Your task to perform on an android device: install app "LiveIn - Share Your Moment" Image 0: 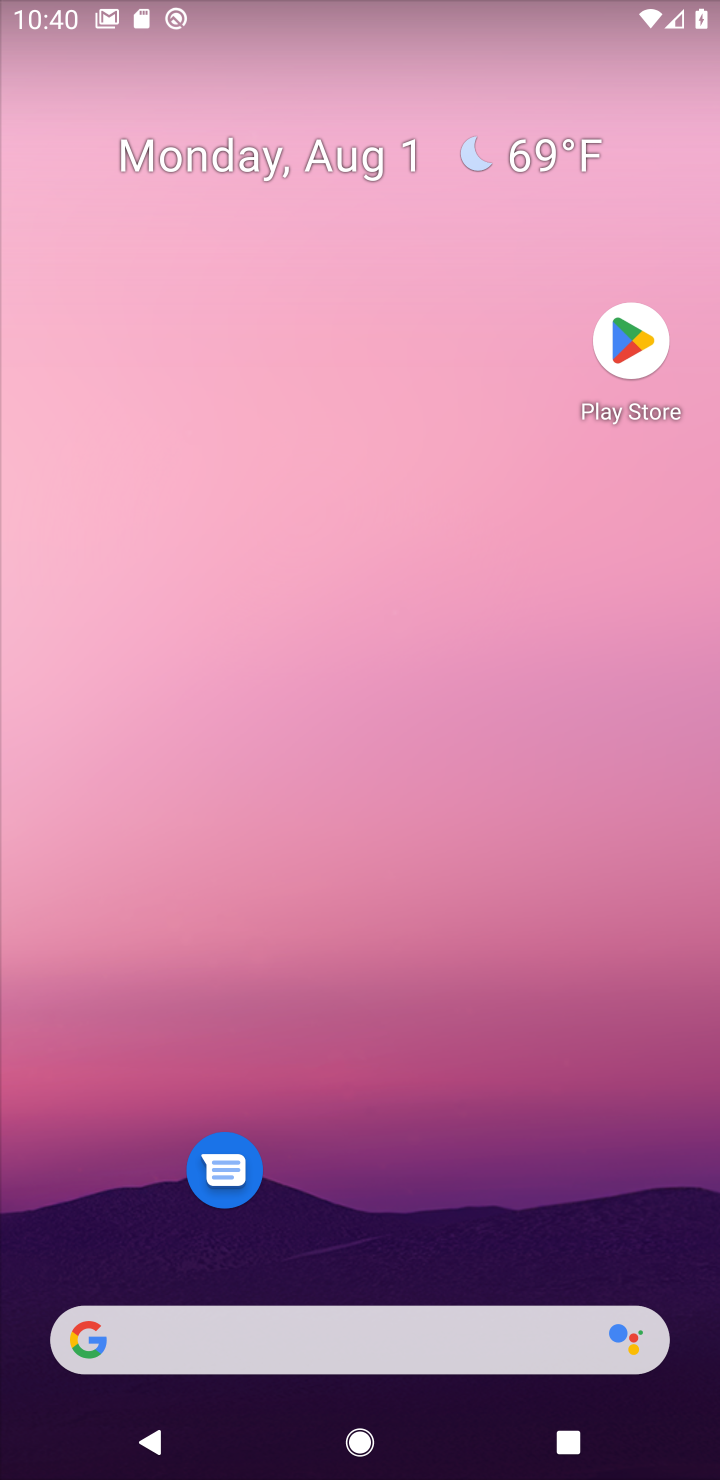
Step 0: drag from (366, 1192) to (387, 634)
Your task to perform on an android device: install app "LiveIn - Share Your Moment" Image 1: 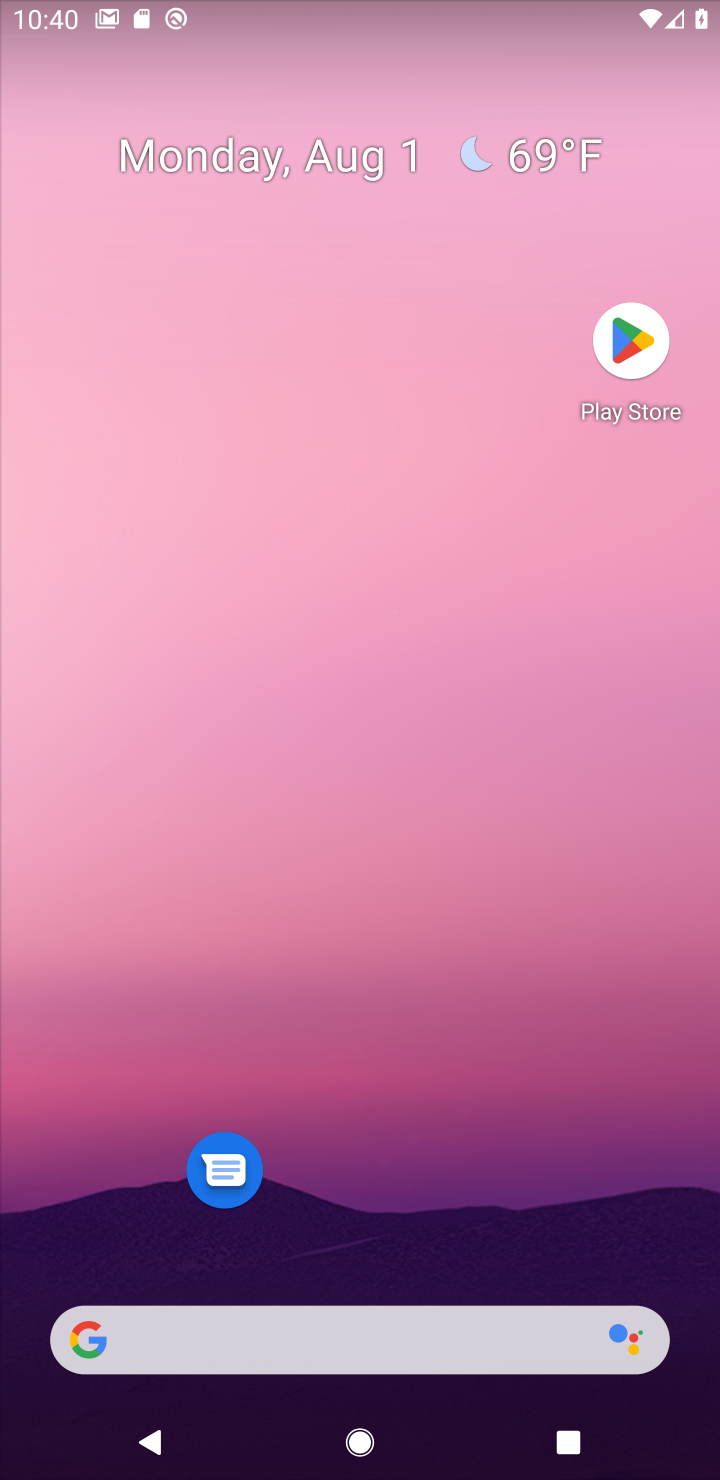
Step 1: drag from (465, 1176) to (275, 267)
Your task to perform on an android device: install app "LiveIn - Share Your Moment" Image 2: 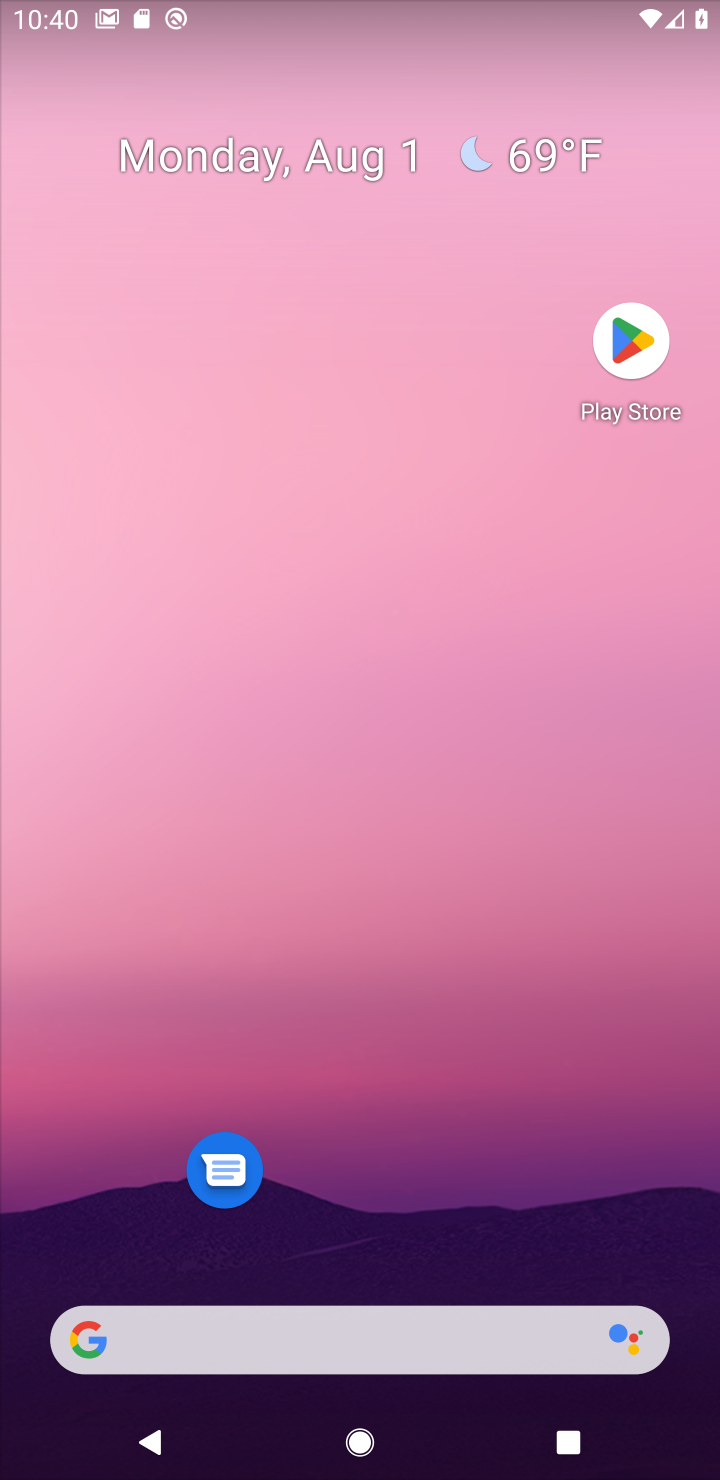
Step 2: drag from (505, 1308) to (297, 348)
Your task to perform on an android device: install app "LiveIn - Share Your Moment" Image 3: 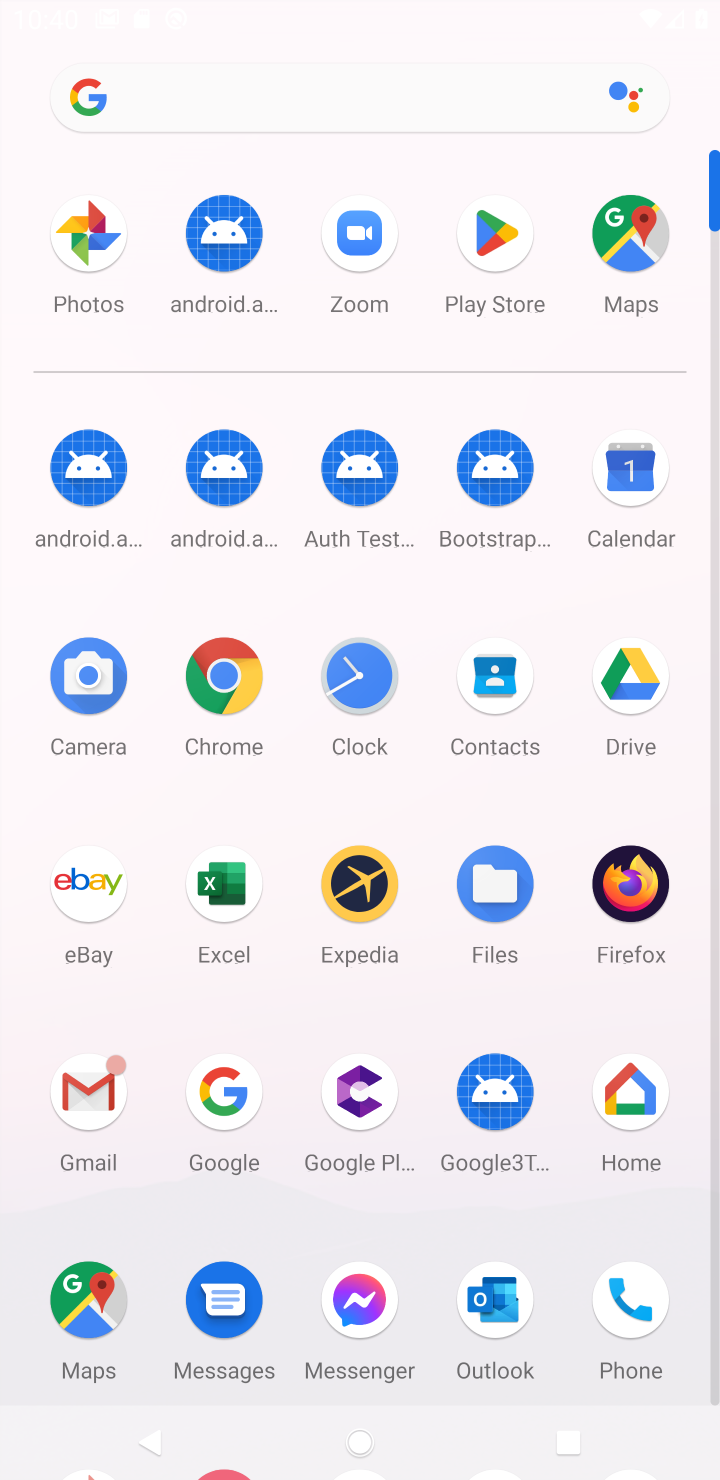
Step 3: click (377, 312)
Your task to perform on an android device: install app "LiveIn - Share Your Moment" Image 4: 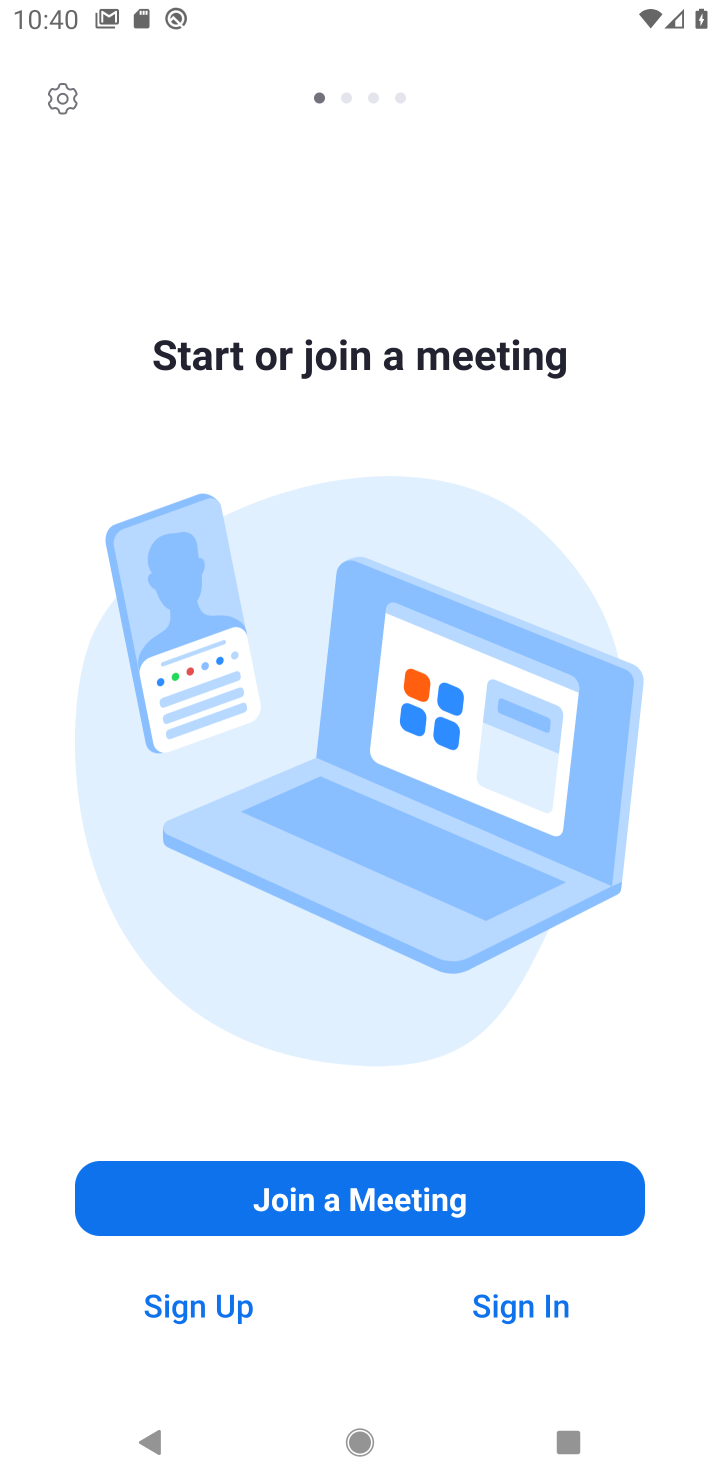
Step 4: press back button
Your task to perform on an android device: install app "LiveIn - Share Your Moment" Image 5: 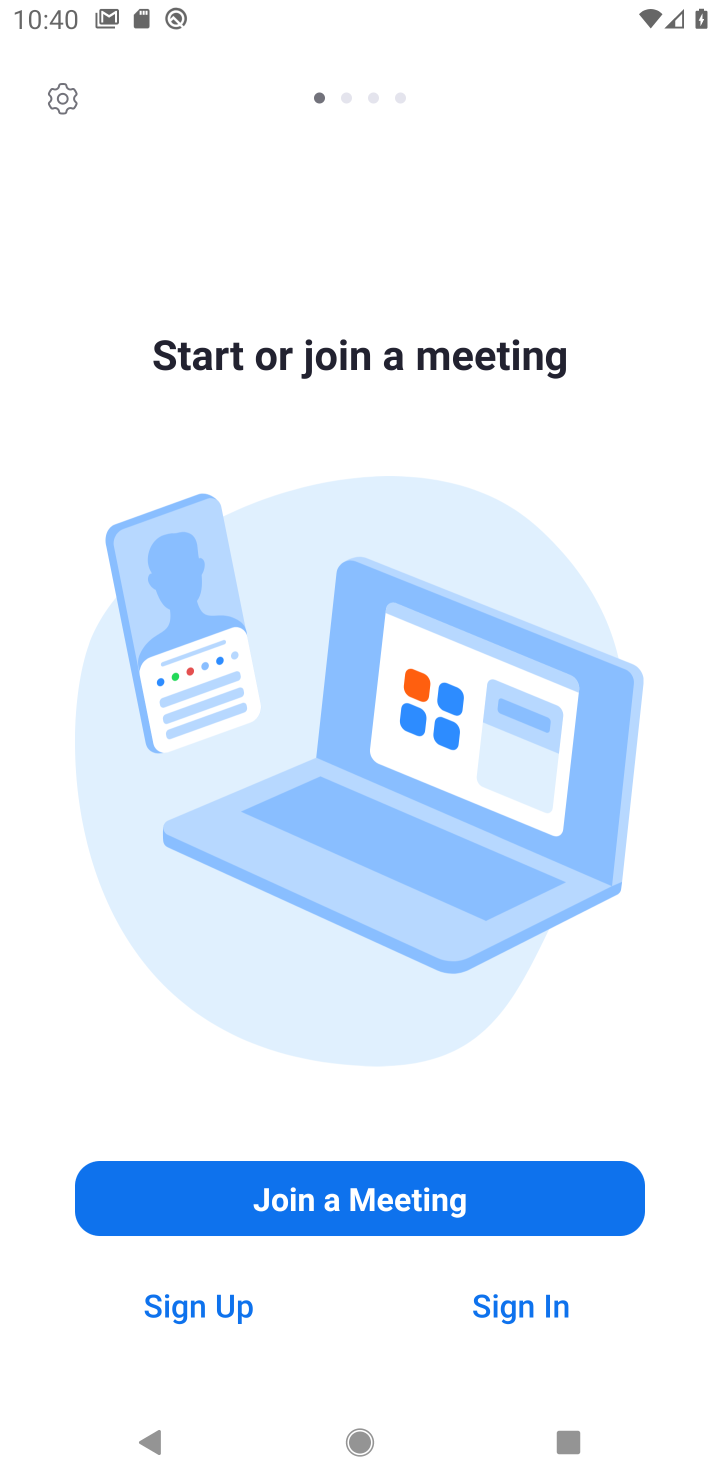
Step 5: press back button
Your task to perform on an android device: install app "LiveIn - Share Your Moment" Image 6: 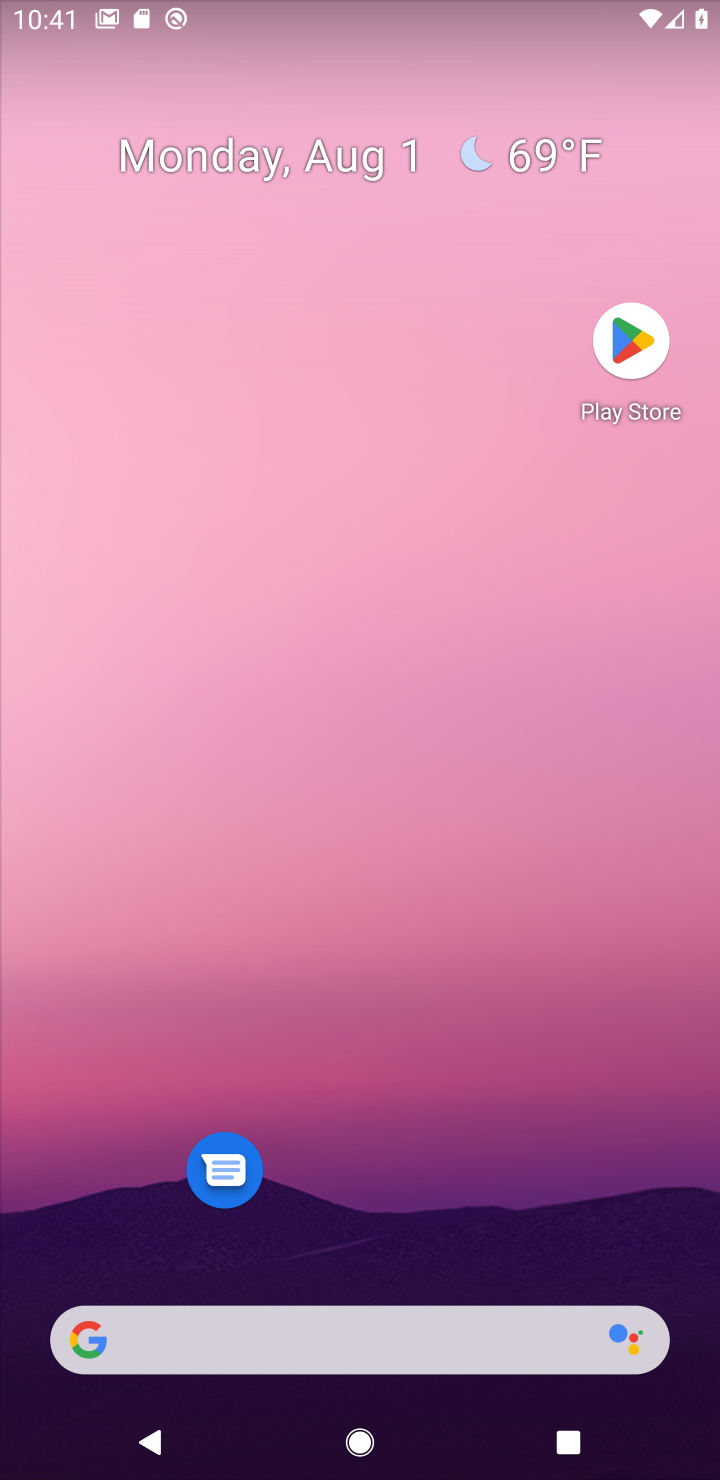
Step 6: drag from (431, 1149) to (184, 42)
Your task to perform on an android device: install app "LiveIn - Share Your Moment" Image 7: 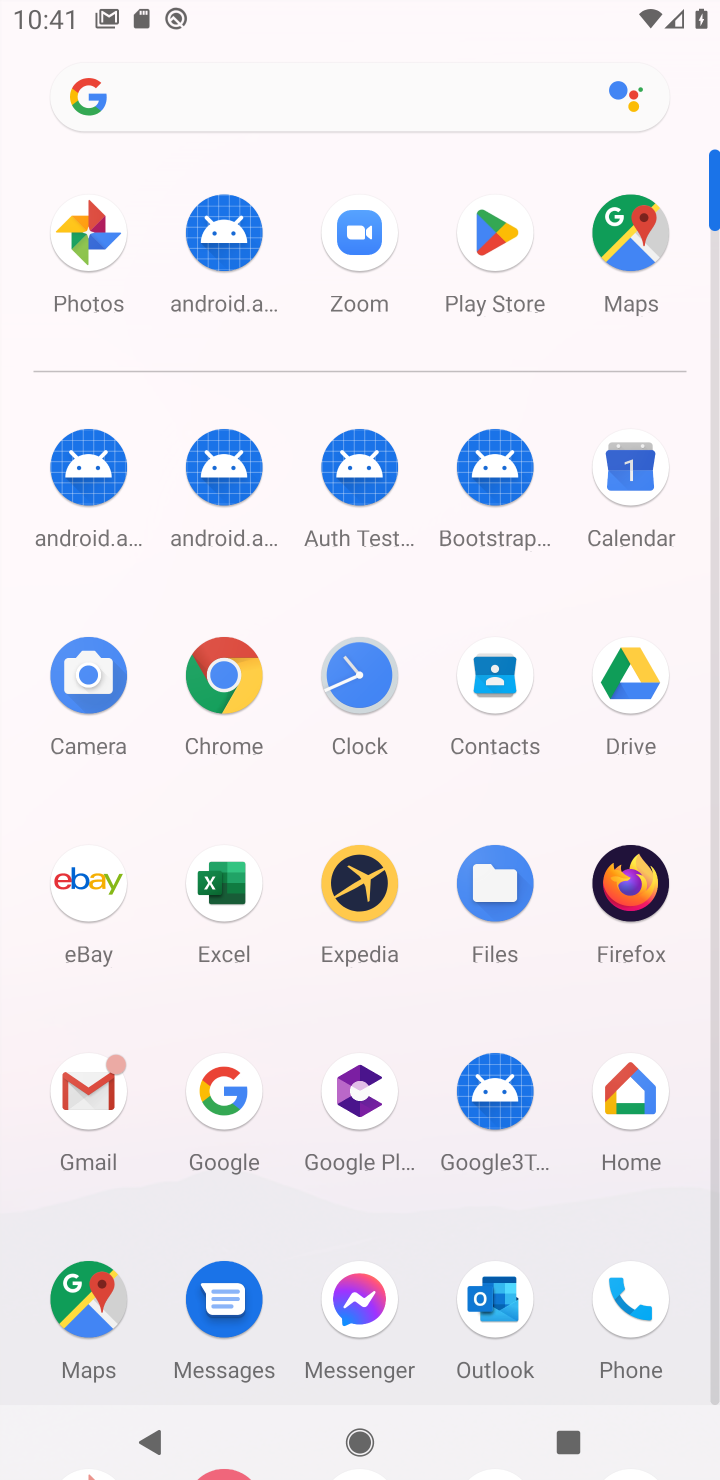
Step 7: click (498, 248)
Your task to perform on an android device: install app "LiveIn - Share Your Moment" Image 8: 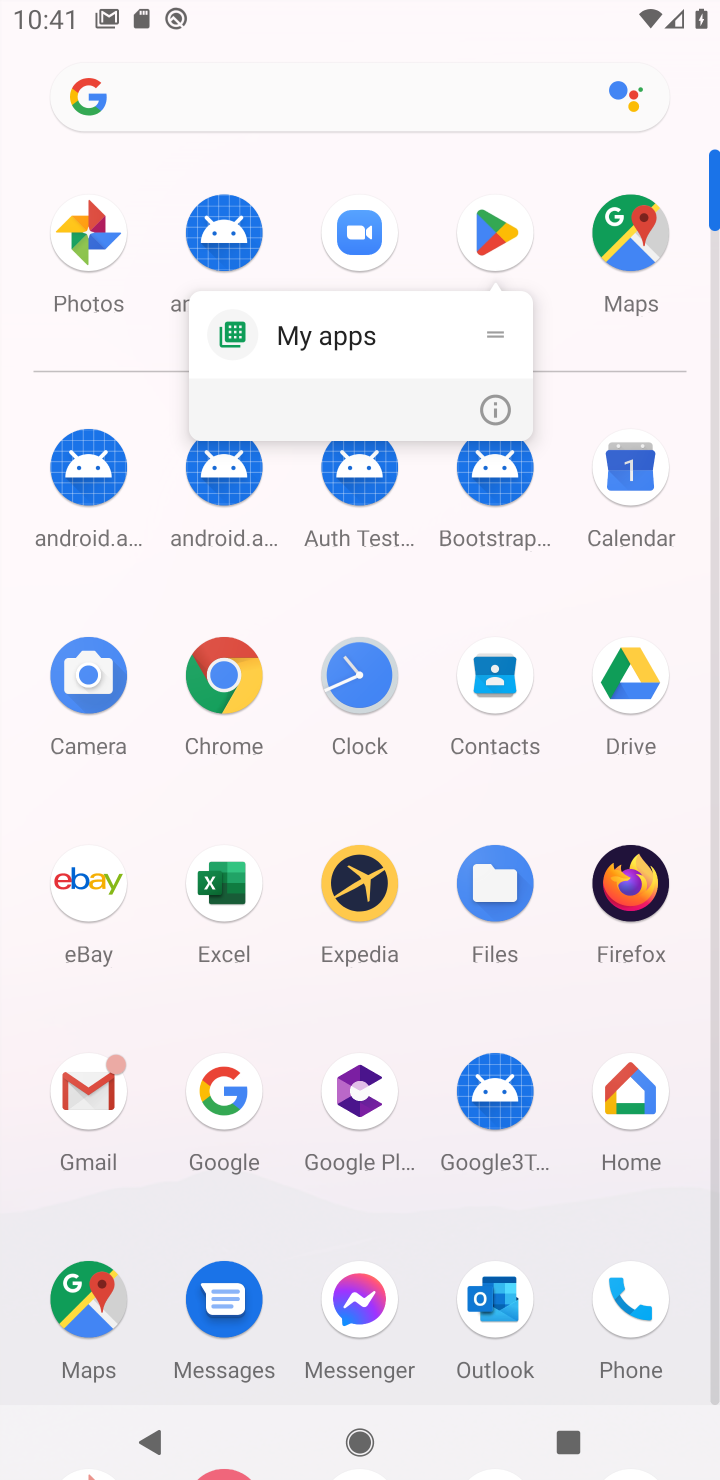
Step 8: click (512, 245)
Your task to perform on an android device: install app "LiveIn - Share Your Moment" Image 9: 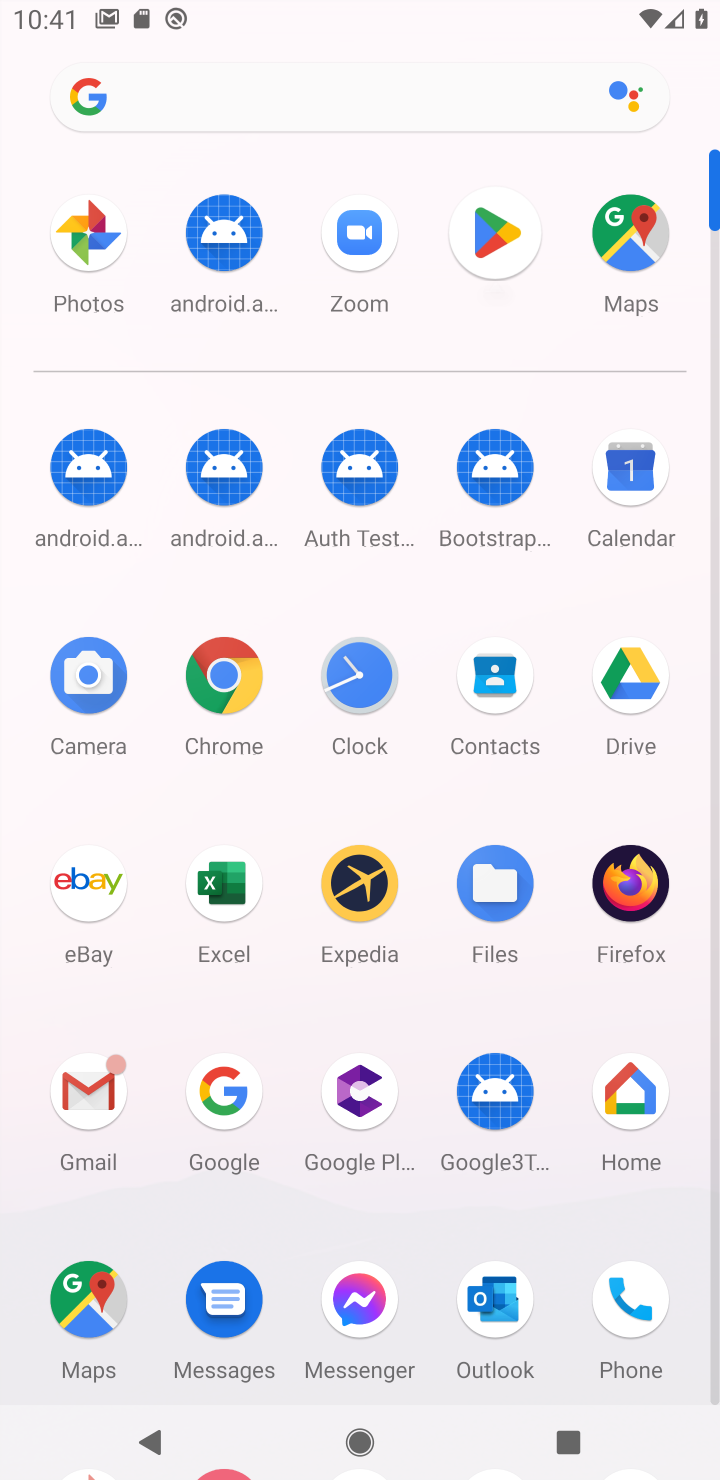
Step 9: click (503, 238)
Your task to perform on an android device: install app "LiveIn - Share Your Moment" Image 10: 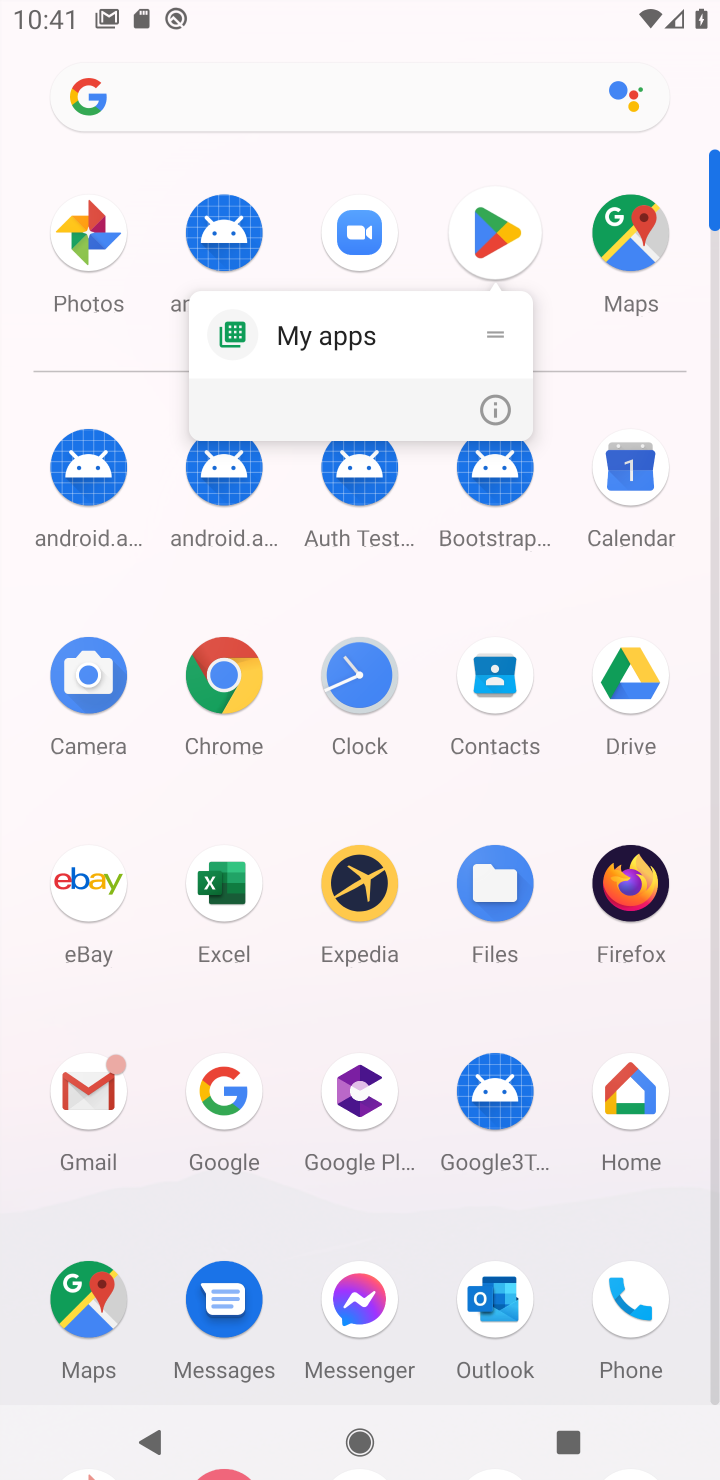
Step 10: click (501, 240)
Your task to perform on an android device: install app "LiveIn - Share Your Moment" Image 11: 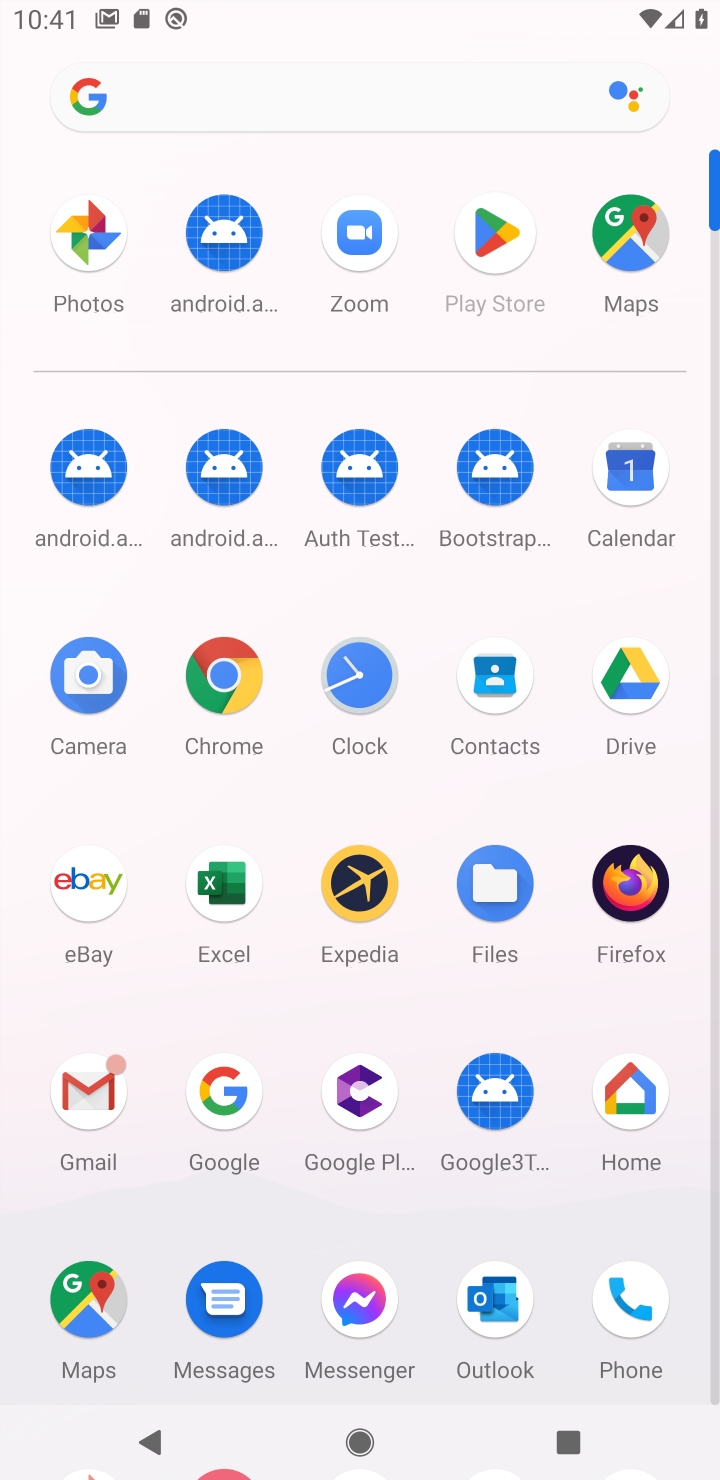
Step 11: click (503, 243)
Your task to perform on an android device: install app "LiveIn - Share Your Moment" Image 12: 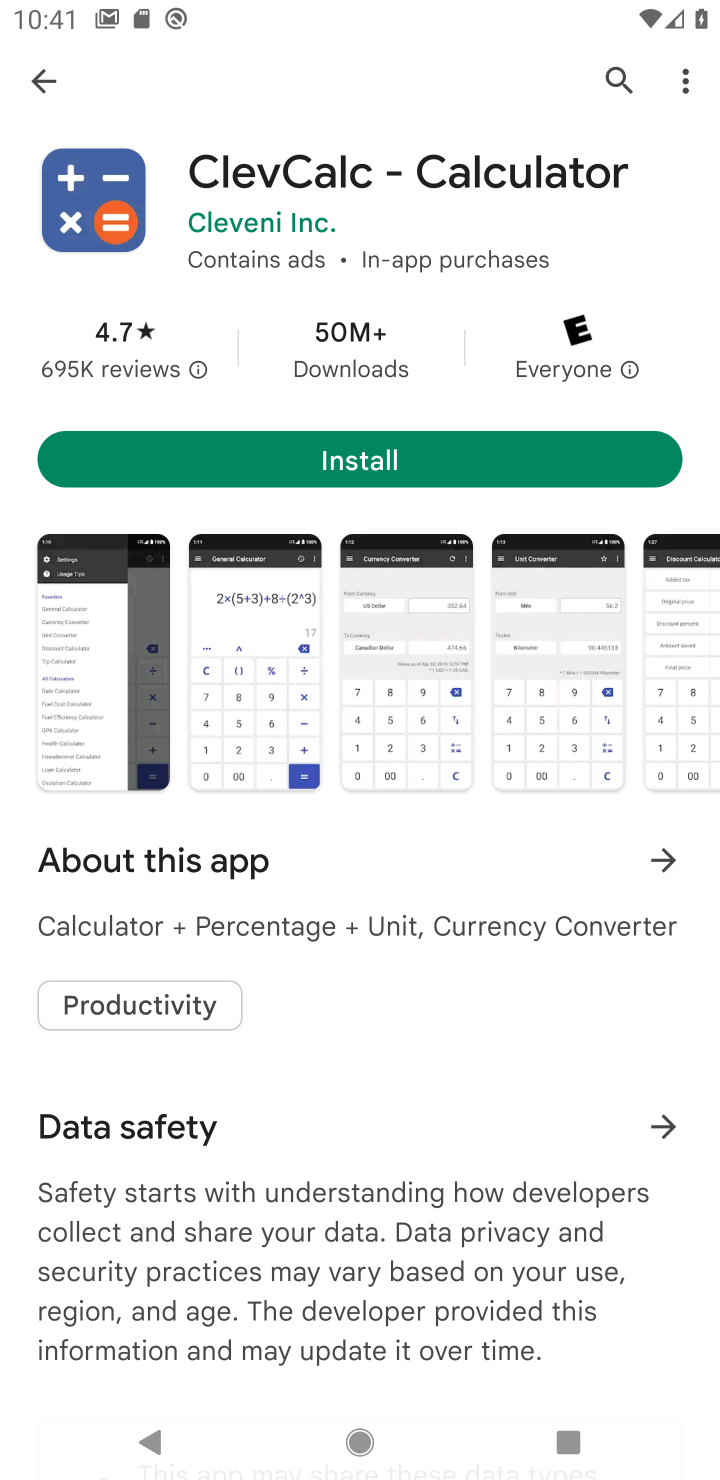
Step 12: click (28, 70)
Your task to perform on an android device: install app "LiveIn - Share Your Moment" Image 13: 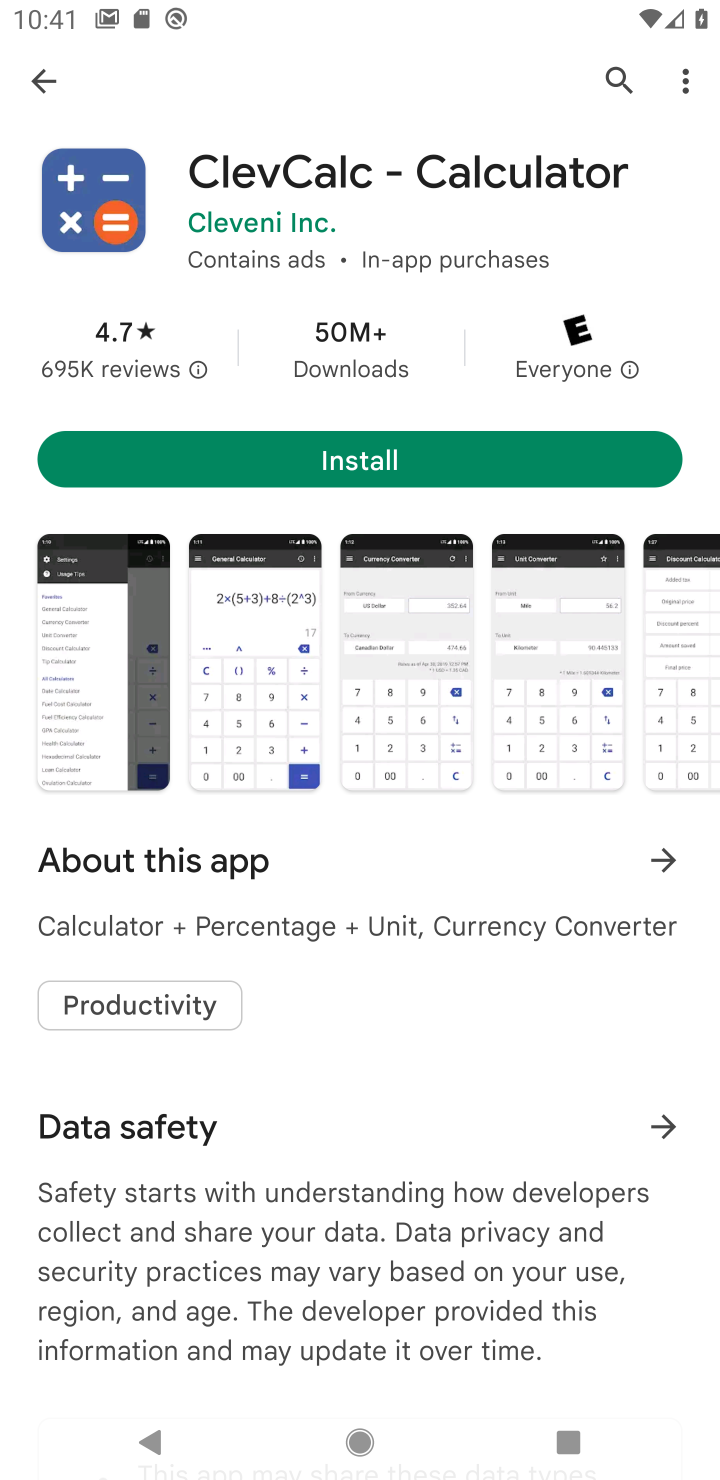
Step 13: click (30, 70)
Your task to perform on an android device: install app "LiveIn - Share Your Moment" Image 14: 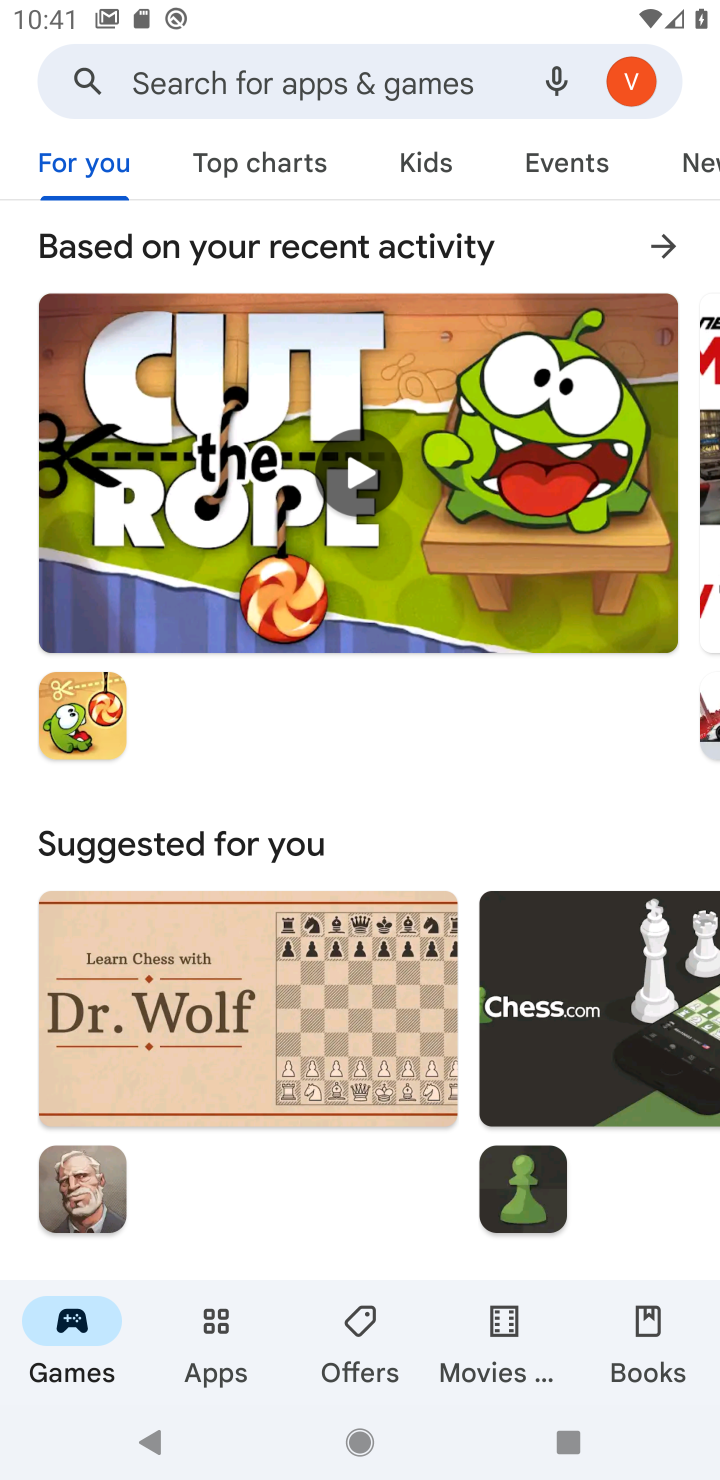
Step 14: click (246, 75)
Your task to perform on an android device: install app "LiveIn - Share Your Moment" Image 15: 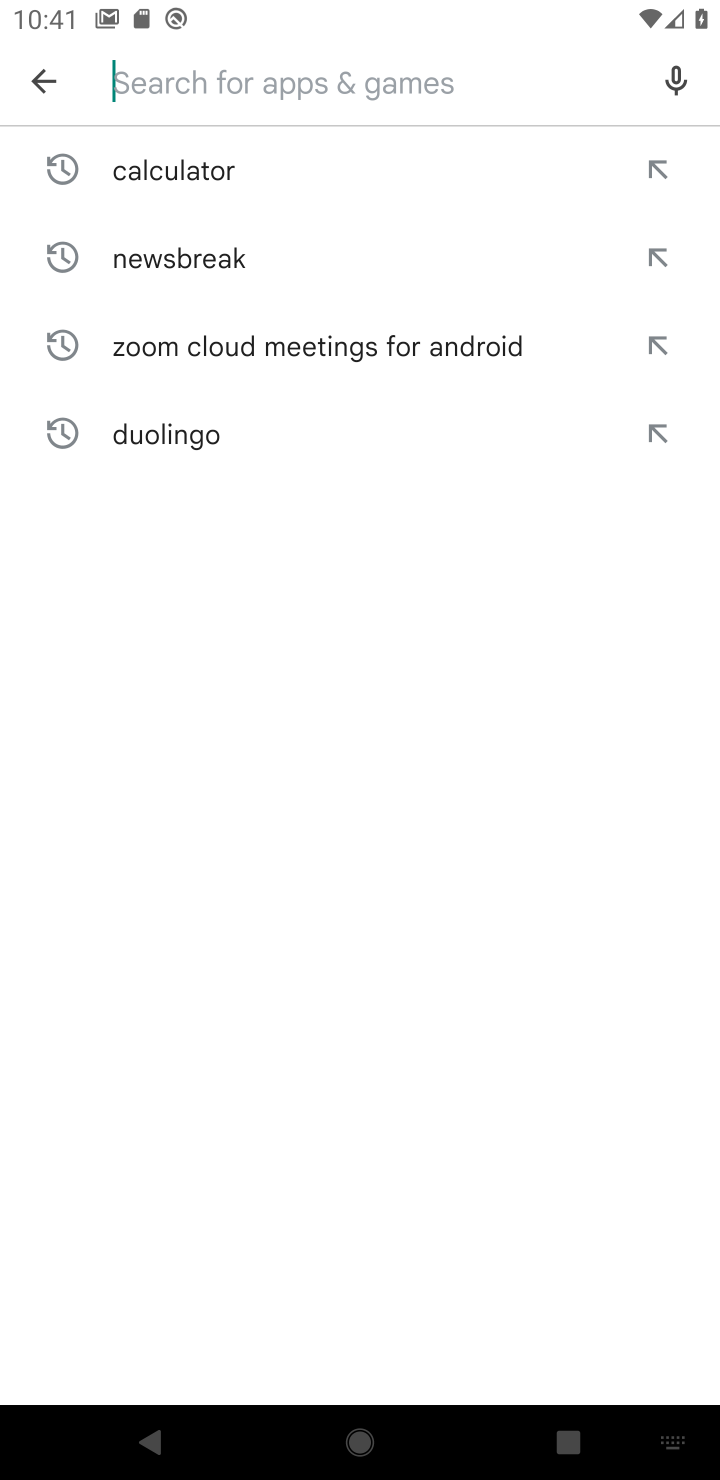
Step 15: type "livein"
Your task to perform on an android device: install app "LiveIn - Share Your Moment" Image 16: 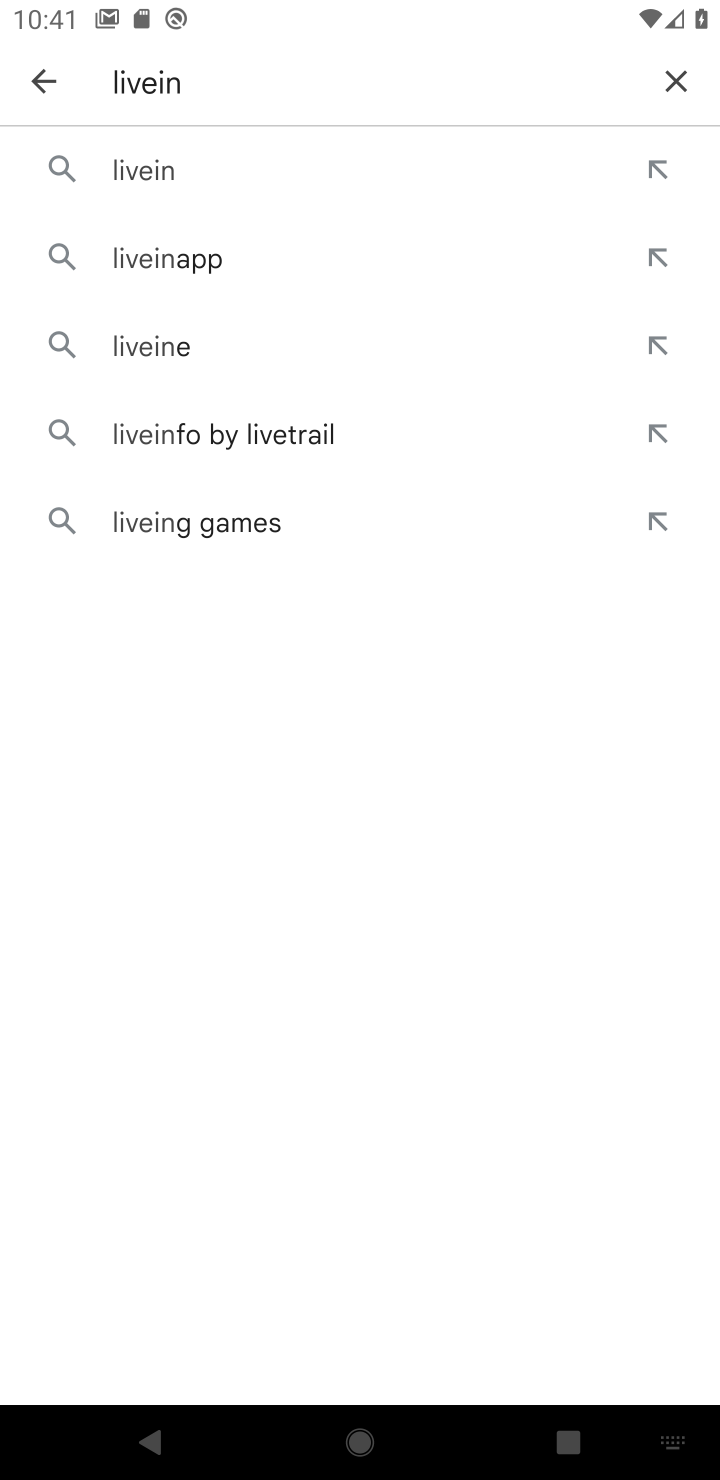
Step 16: click (154, 166)
Your task to perform on an android device: install app "LiveIn - Share Your Moment" Image 17: 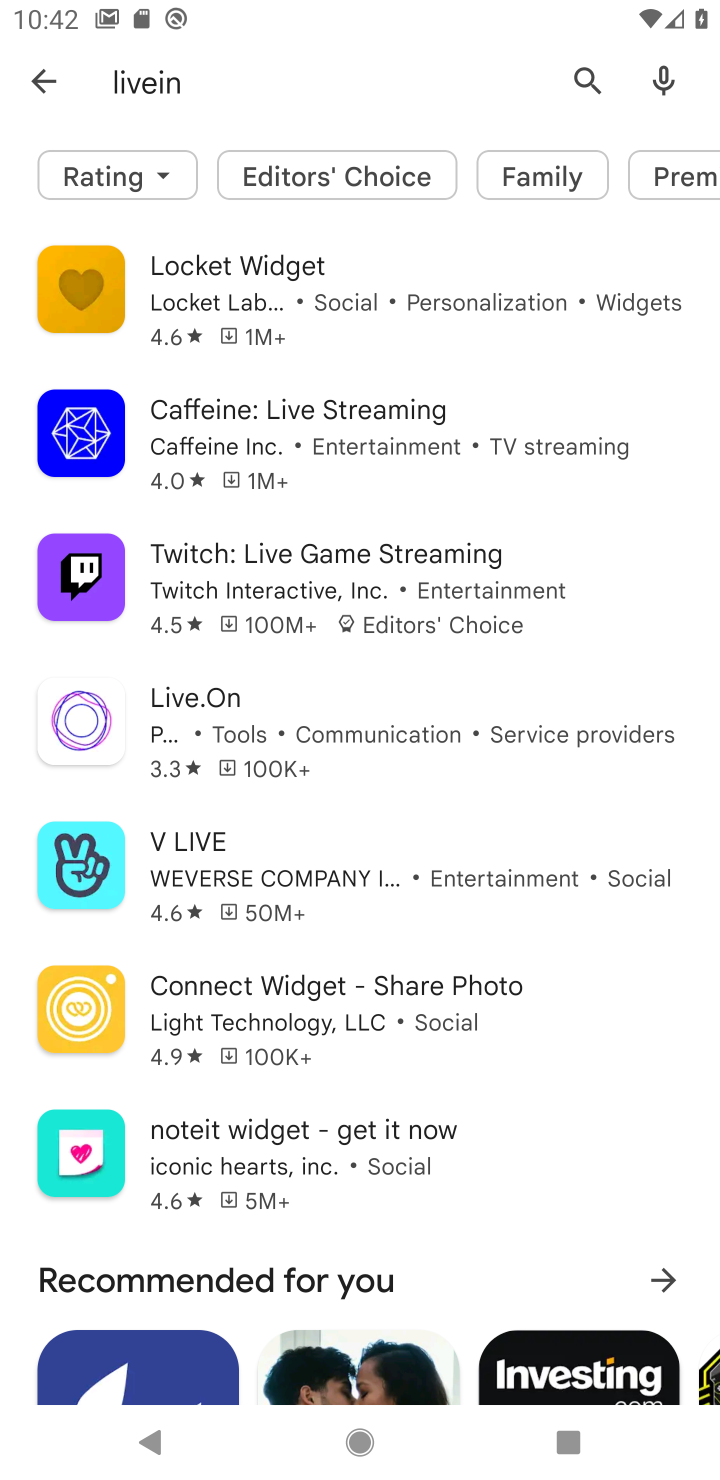
Step 17: task complete